Your task to perform on an android device: check out phone information Image 0: 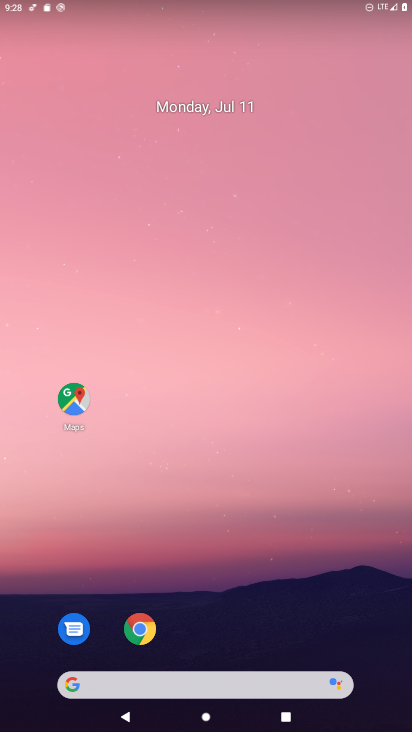
Step 0: drag from (223, 5) to (267, 620)
Your task to perform on an android device: check out phone information Image 1: 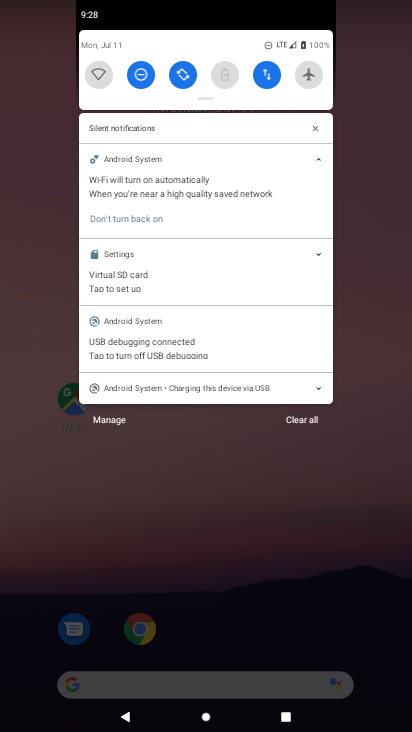
Step 1: drag from (188, 47) to (216, 673)
Your task to perform on an android device: check out phone information Image 2: 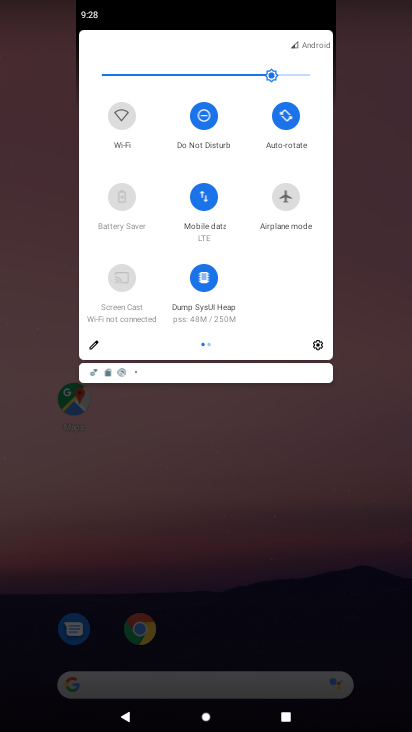
Step 2: click (316, 349)
Your task to perform on an android device: check out phone information Image 3: 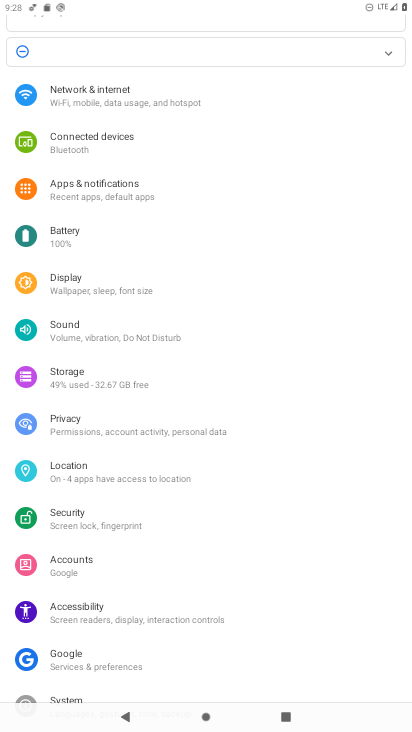
Step 3: drag from (104, 654) to (246, 171)
Your task to perform on an android device: check out phone information Image 4: 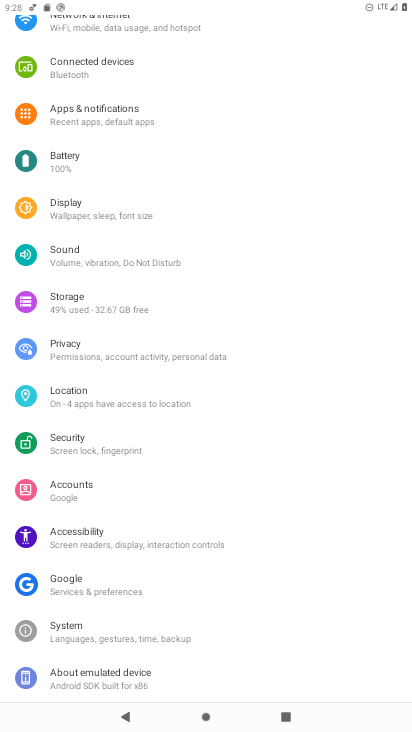
Step 4: click (87, 668)
Your task to perform on an android device: check out phone information Image 5: 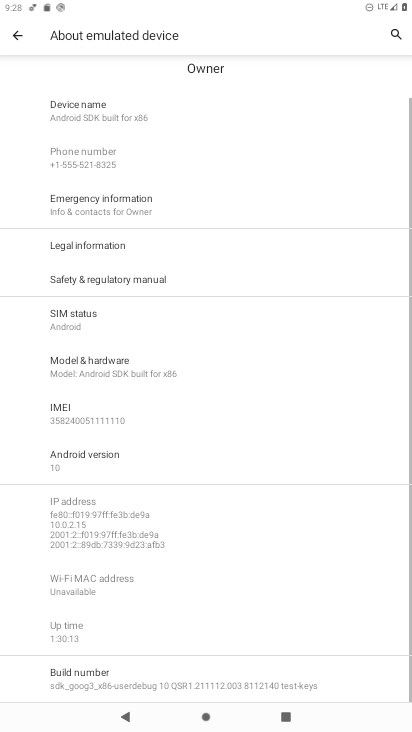
Step 5: task complete